Your task to perform on an android device: Is it going to rain this weekend? Image 0: 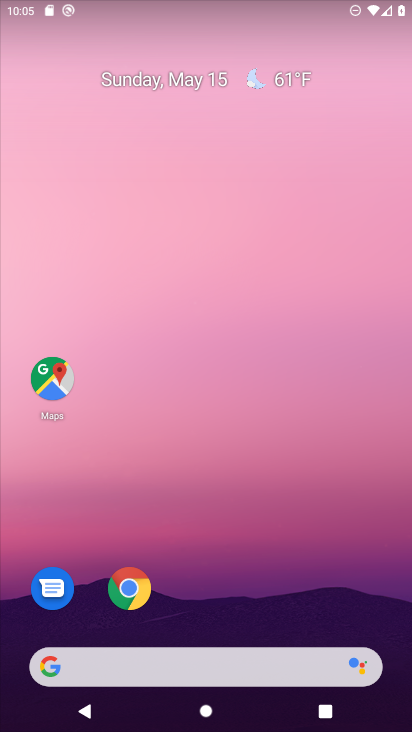
Step 0: click (228, 627)
Your task to perform on an android device: Is it going to rain this weekend? Image 1: 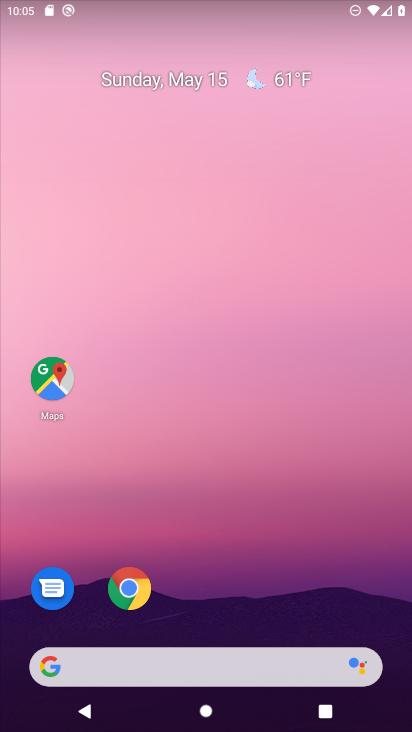
Step 1: click (283, 84)
Your task to perform on an android device: Is it going to rain this weekend? Image 2: 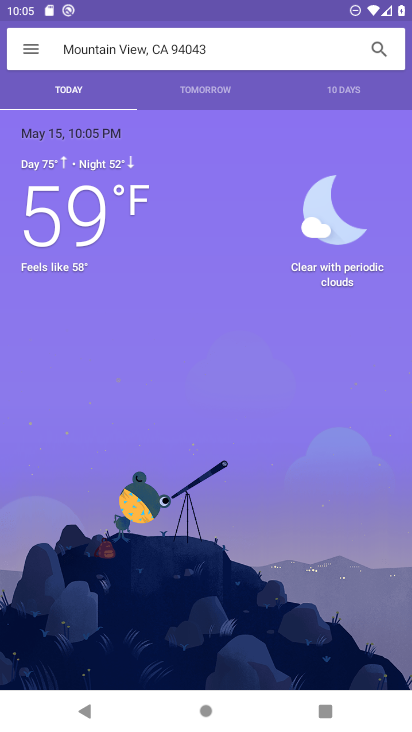
Step 2: task complete